Your task to perform on an android device: Add "razer blackwidow" to the cart on amazon.com Image 0: 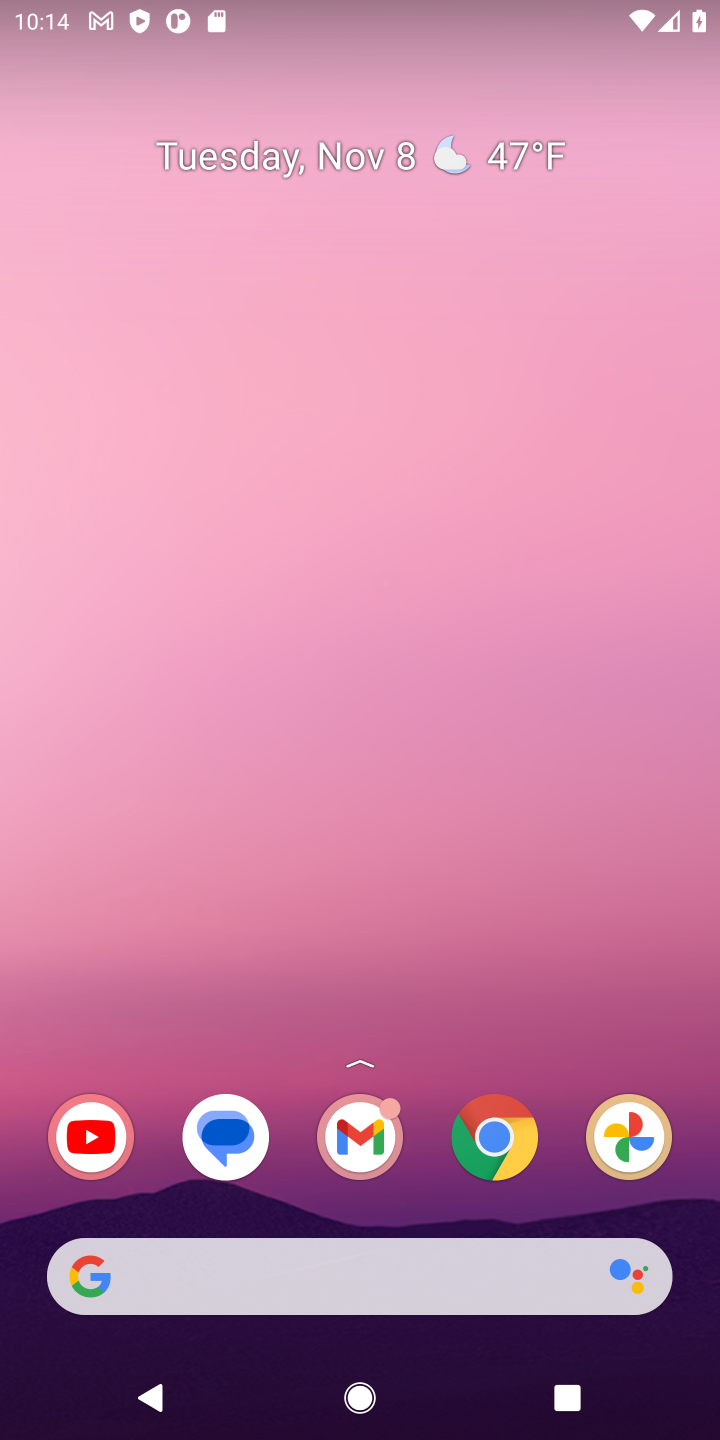
Step 0: click (488, 1136)
Your task to perform on an android device: Add "razer blackwidow" to the cart on amazon.com Image 1: 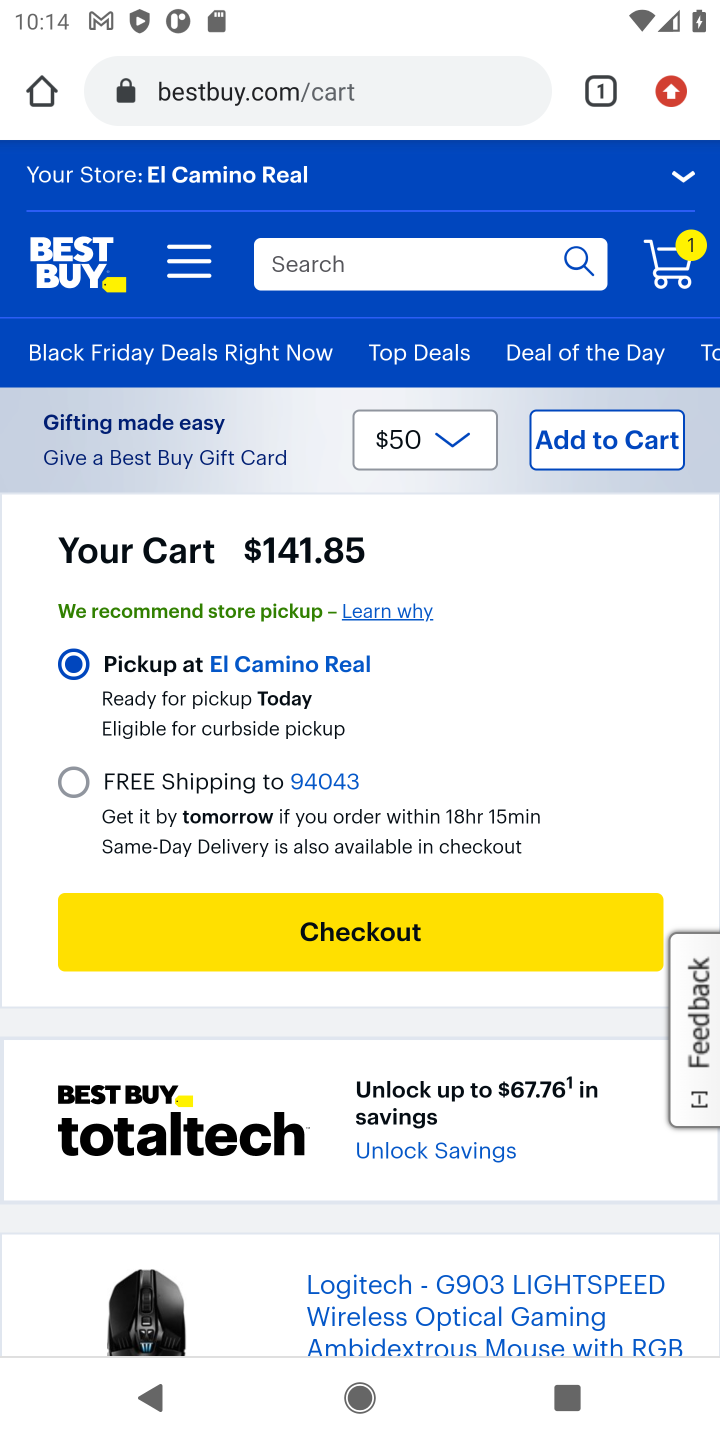
Step 1: click (450, 103)
Your task to perform on an android device: Add "razer blackwidow" to the cart on amazon.com Image 2: 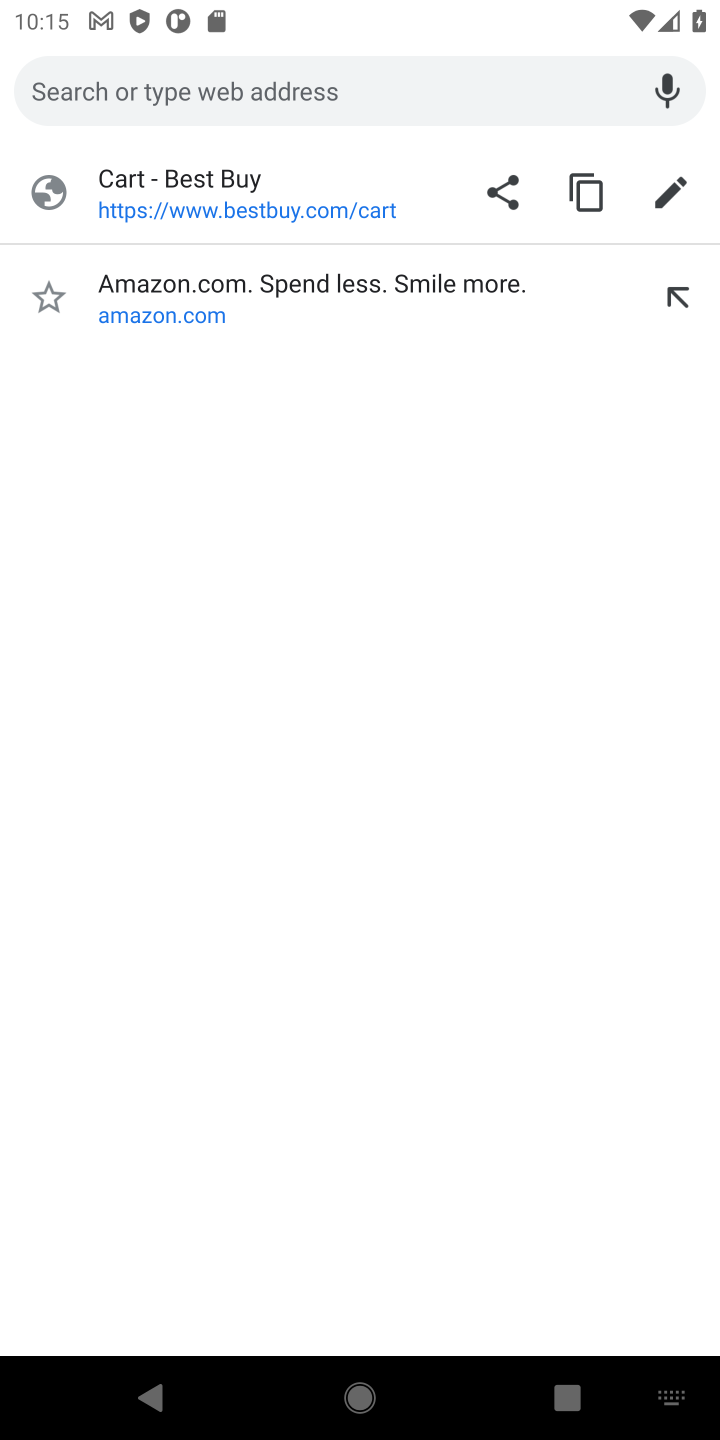
Step 2: type "amazon.com"
Your task to perform on an android device: Add "razer blackwidow" to the cart on amazon.com Image 3: 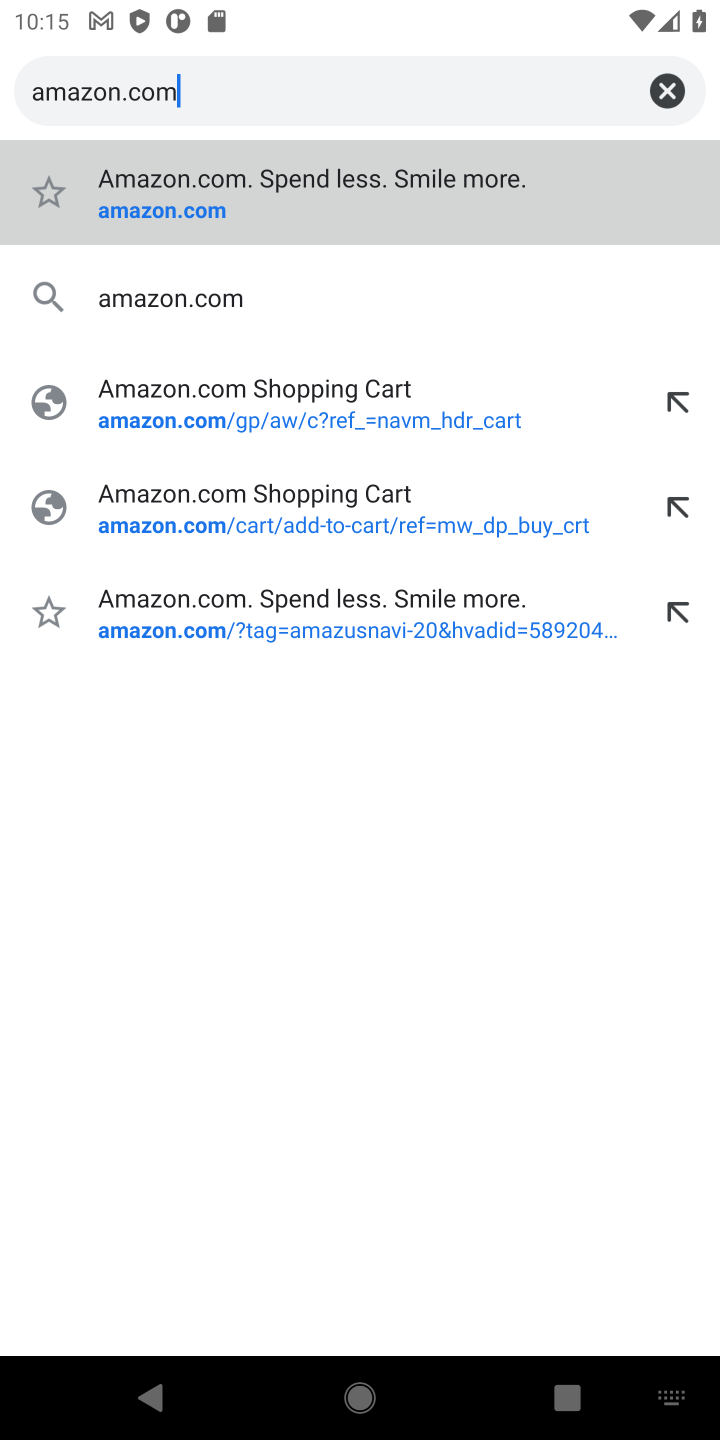
Step 3: click (179, 305)
Your task to perform on an android device: Add "razer blackwidow" to the cart on amazon.com Image 4: 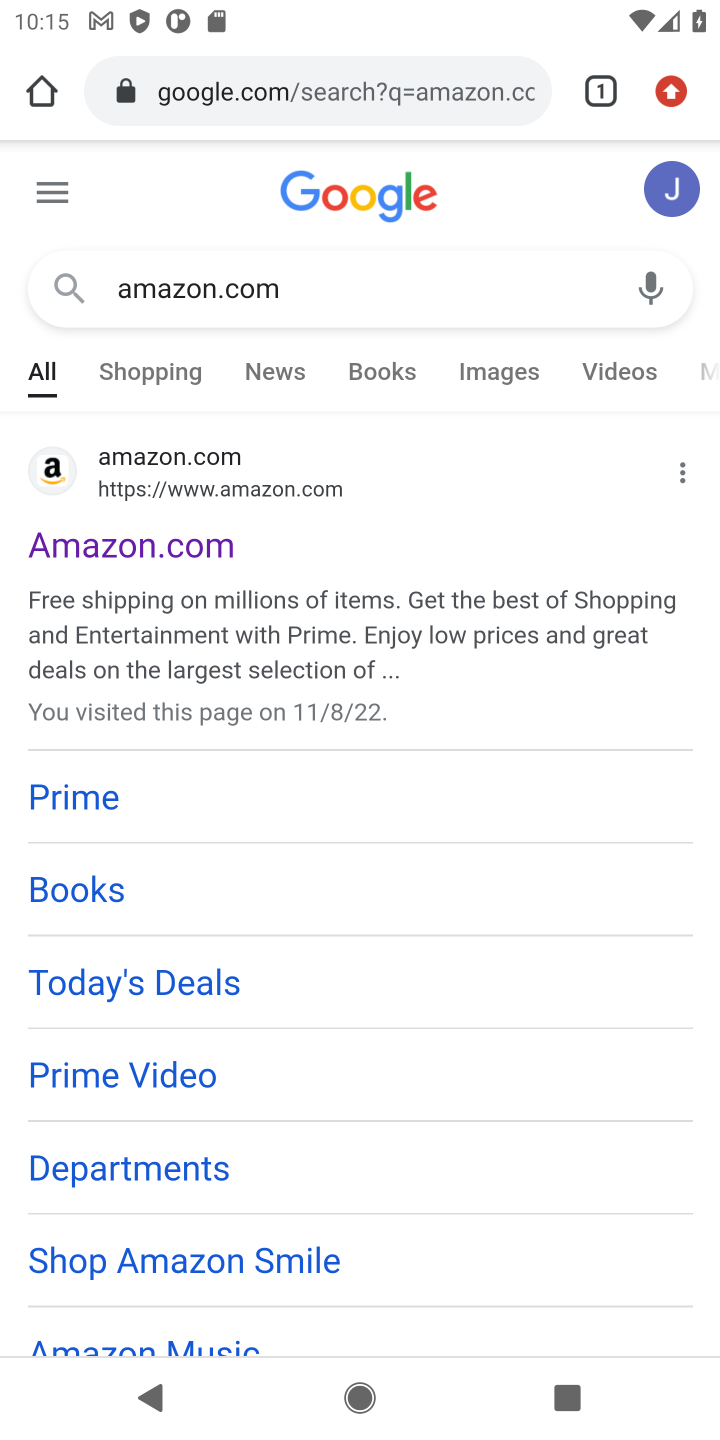
Step 4: click (170, 517)
Your task to perform on an android device: Add "razer blackwidow" to the cart on amazon.com Image 5: 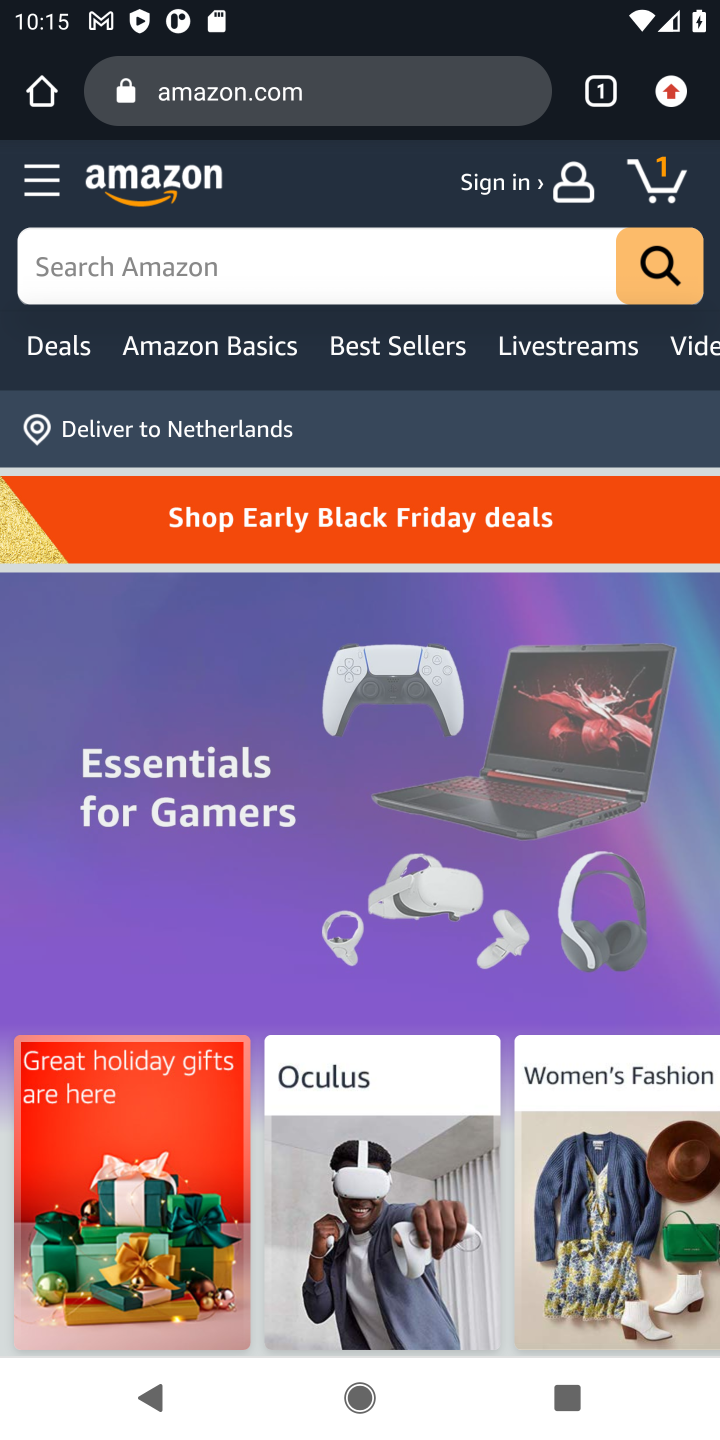
Step 5: click (346, 269)
Your task to perform on an android device: Add "razer blackwidow" to the cart on amazon.com Image 6: 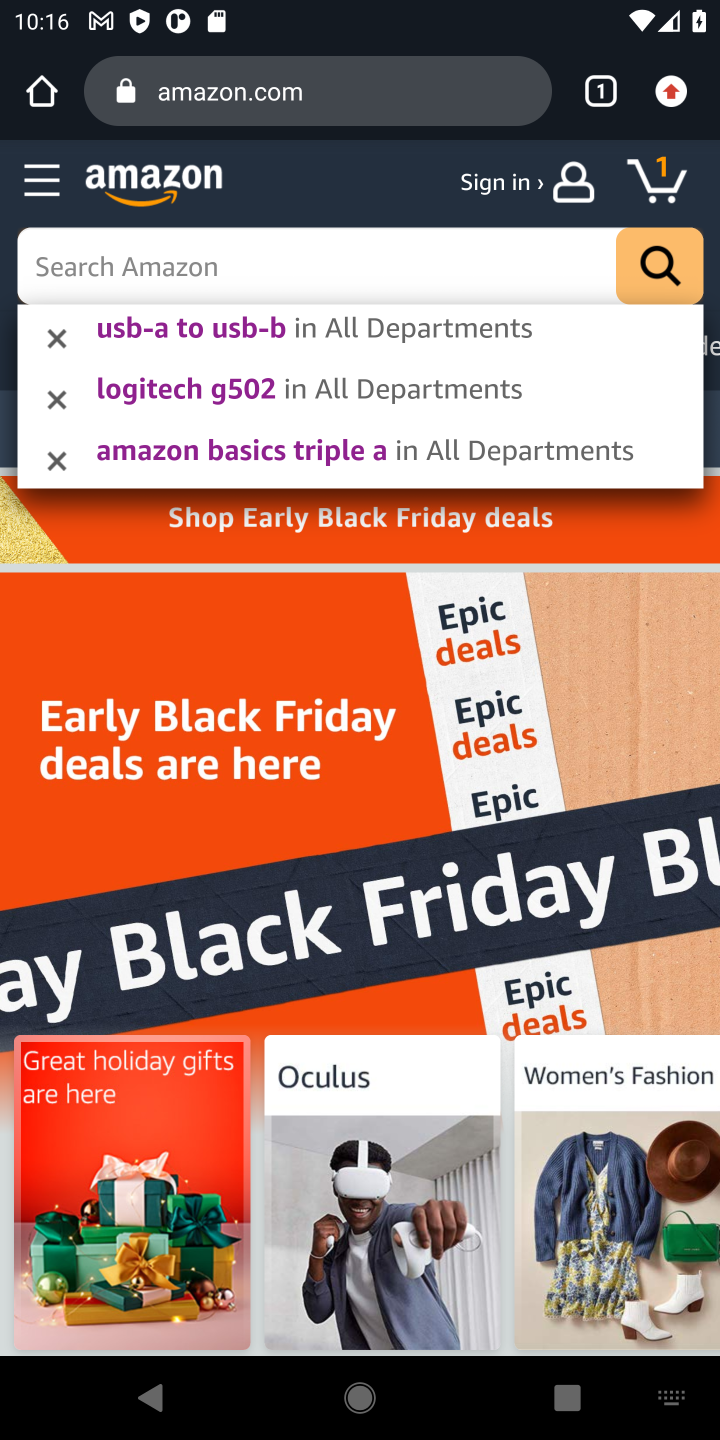
Step 6: type "razer blackwidow"
Your task to perform on an android device: Add "razer blackwidow" to the cart on amazon.com Image 7: 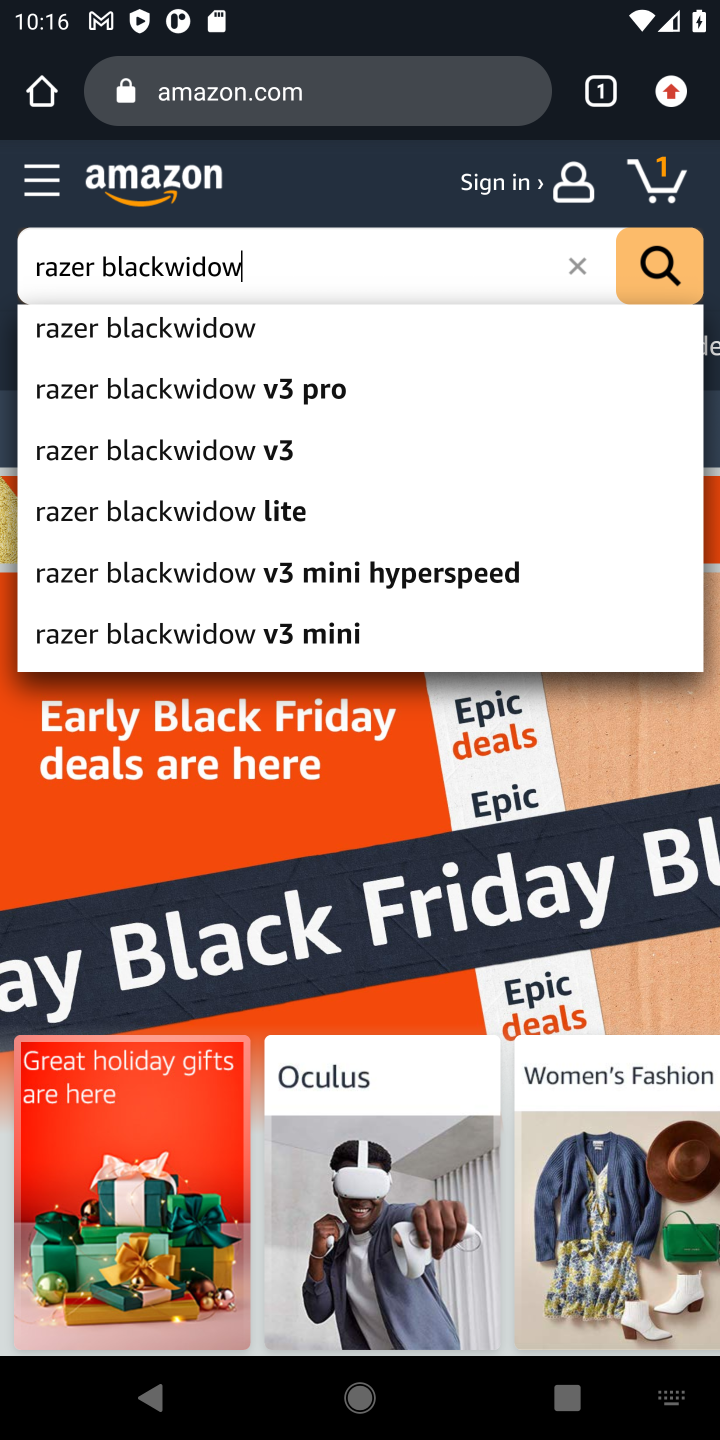
Step 7: click (213, 337)
Your task to perform on an android device: Add "razer blackwidow" to the cart on amazon.com Image 8: 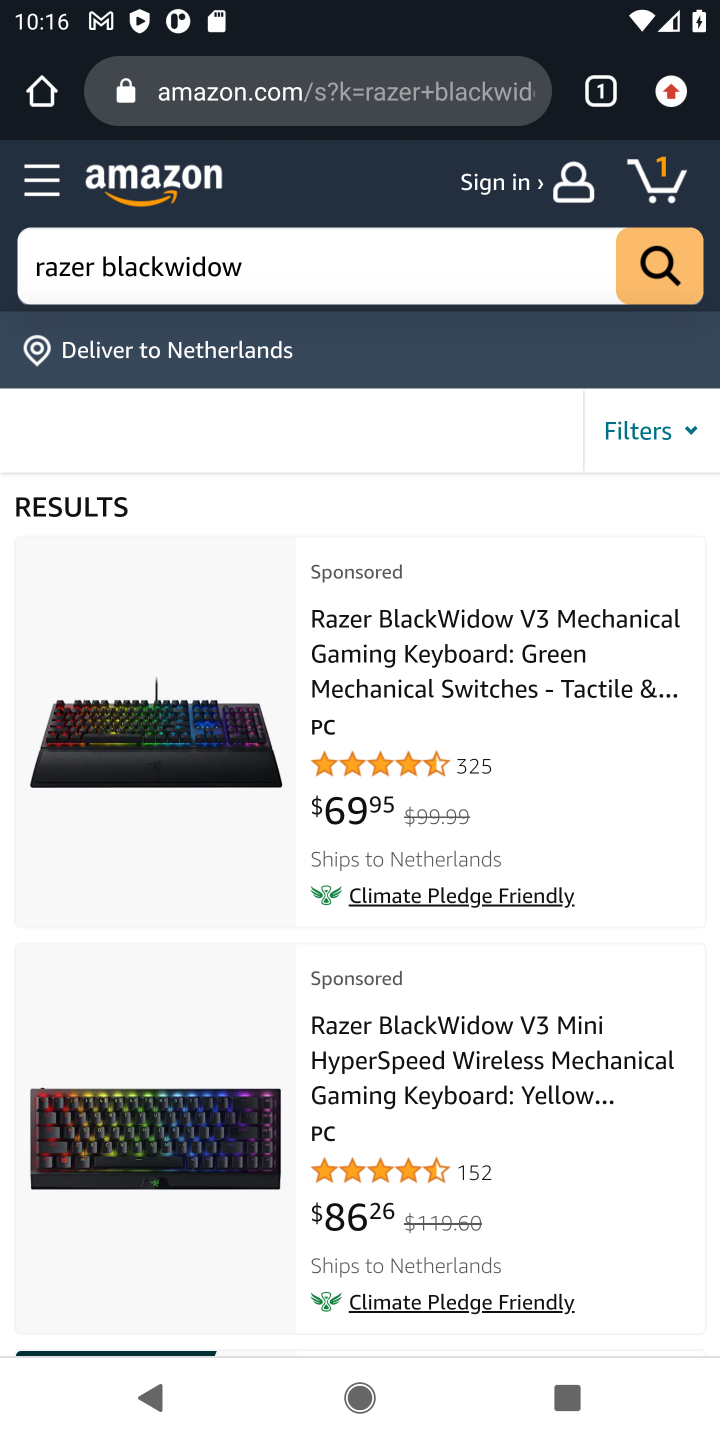
Step 8: drag from (505, 1157) to (538, 564)
Your task to perform on an android device: Add "razer blackwidow" to the cart on amazon.com Image 9: 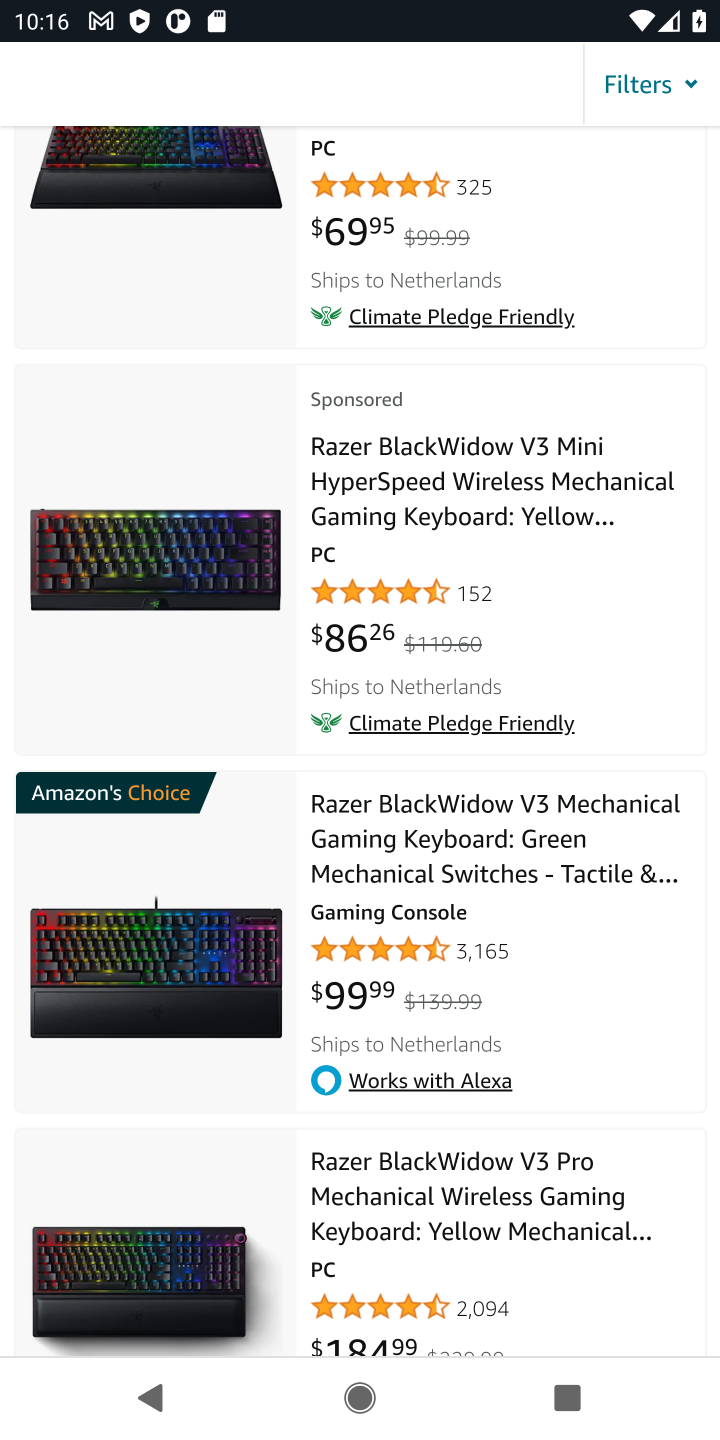
Step 9: click (460, 812)
Your task to perform on an android device: Add "razer blackwidow" to the cart on amazon.com Image 10: 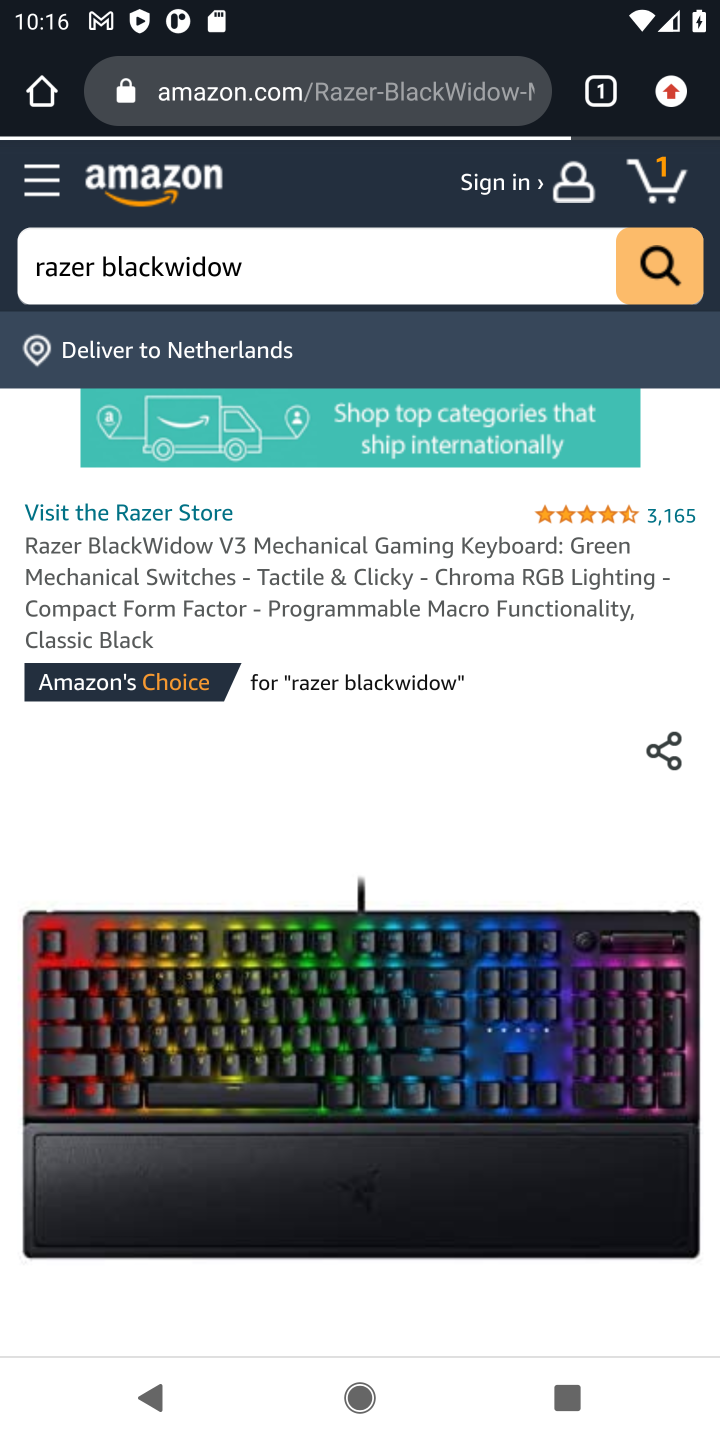
Step 10: drag from (464, 1146) to (448, 541)
Your task to perform on an android device: Add "razer blackwidow" to the cart on amazon.com Image 11: 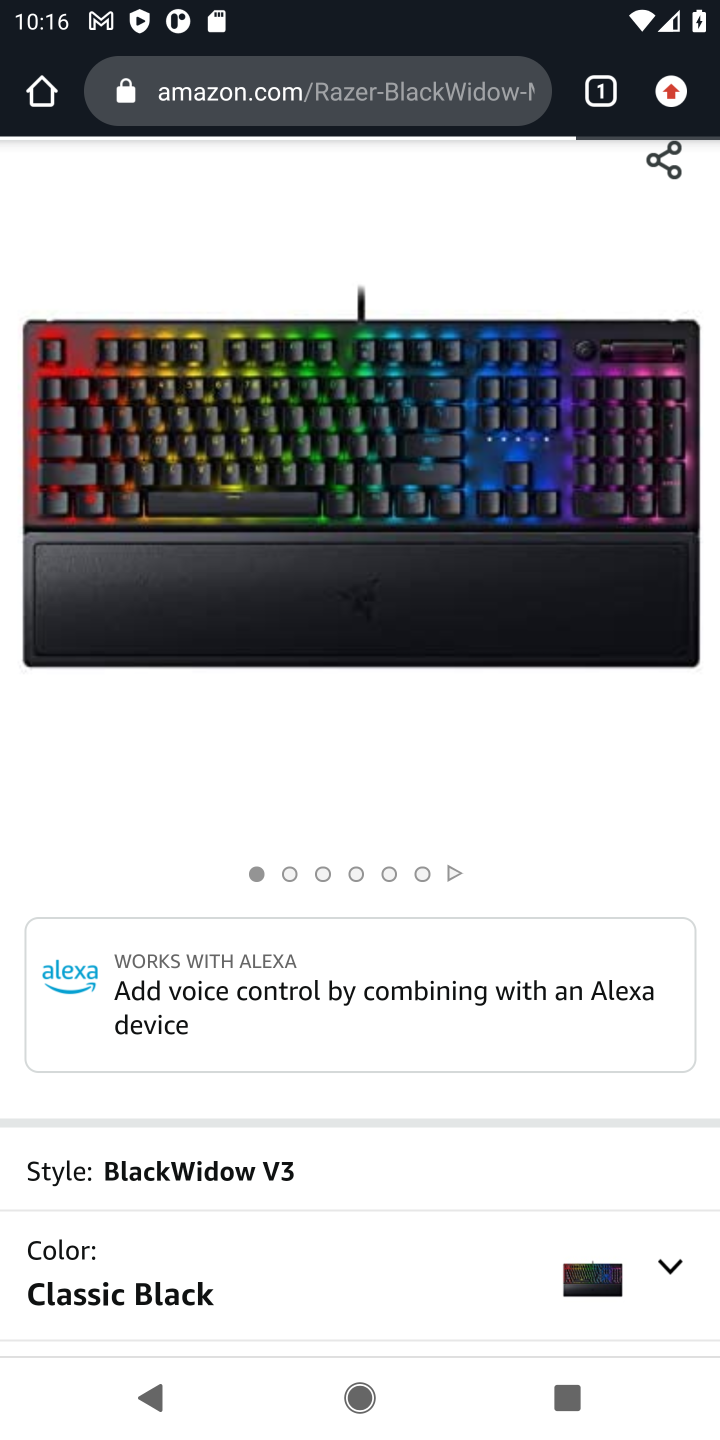
Step 11: drag from (445, 837) to (507, 608)
Your task to perform on an android device: Add "razer blackwidow" to the cart on amazon.com Image 12: 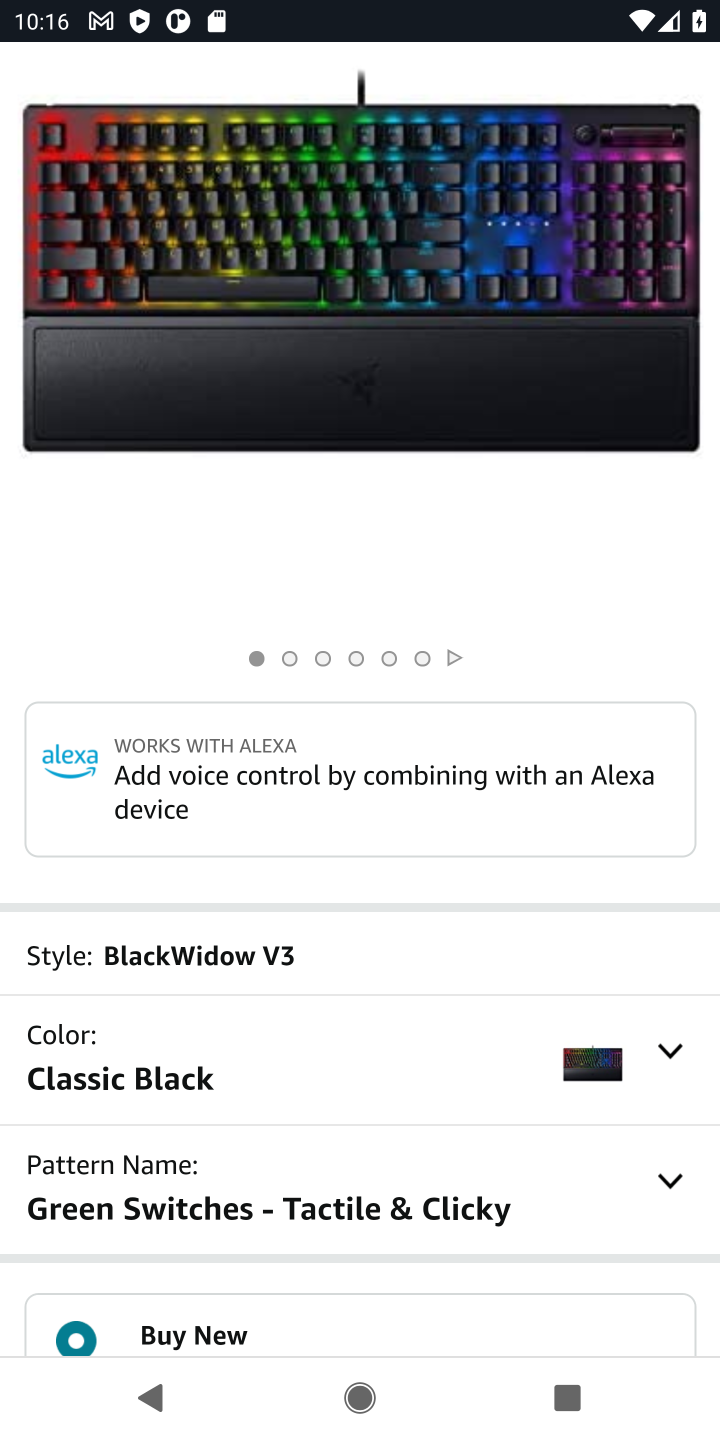
Step 12: drag from (406, 1182) to (452, 387)
Your task to perform on an android device: Add "razer blackwidow" to the cart on amazon.com Image 13: 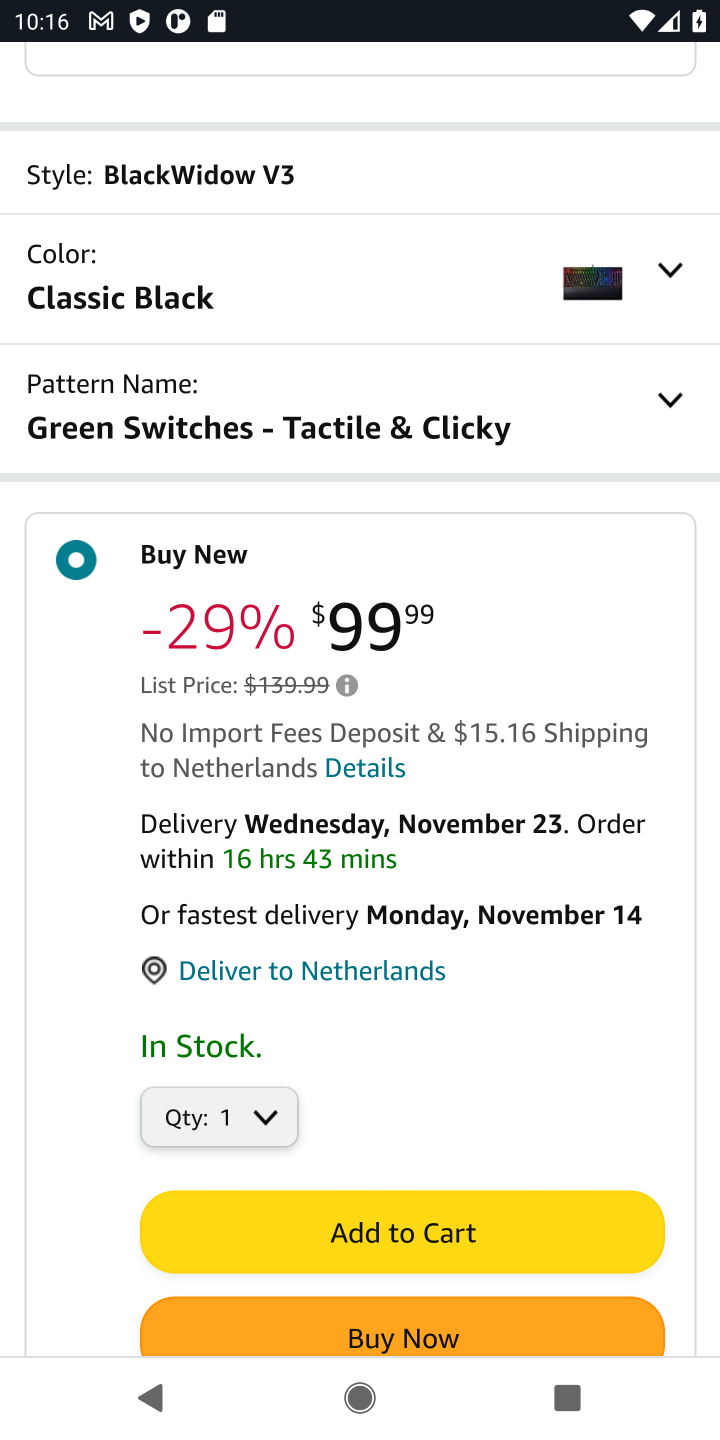
Step 13: drag from (383, 966) to (460, 408)
Your task to perform on an android device: Add "razer blackwidow" to the cart on amazon.com Image 14: 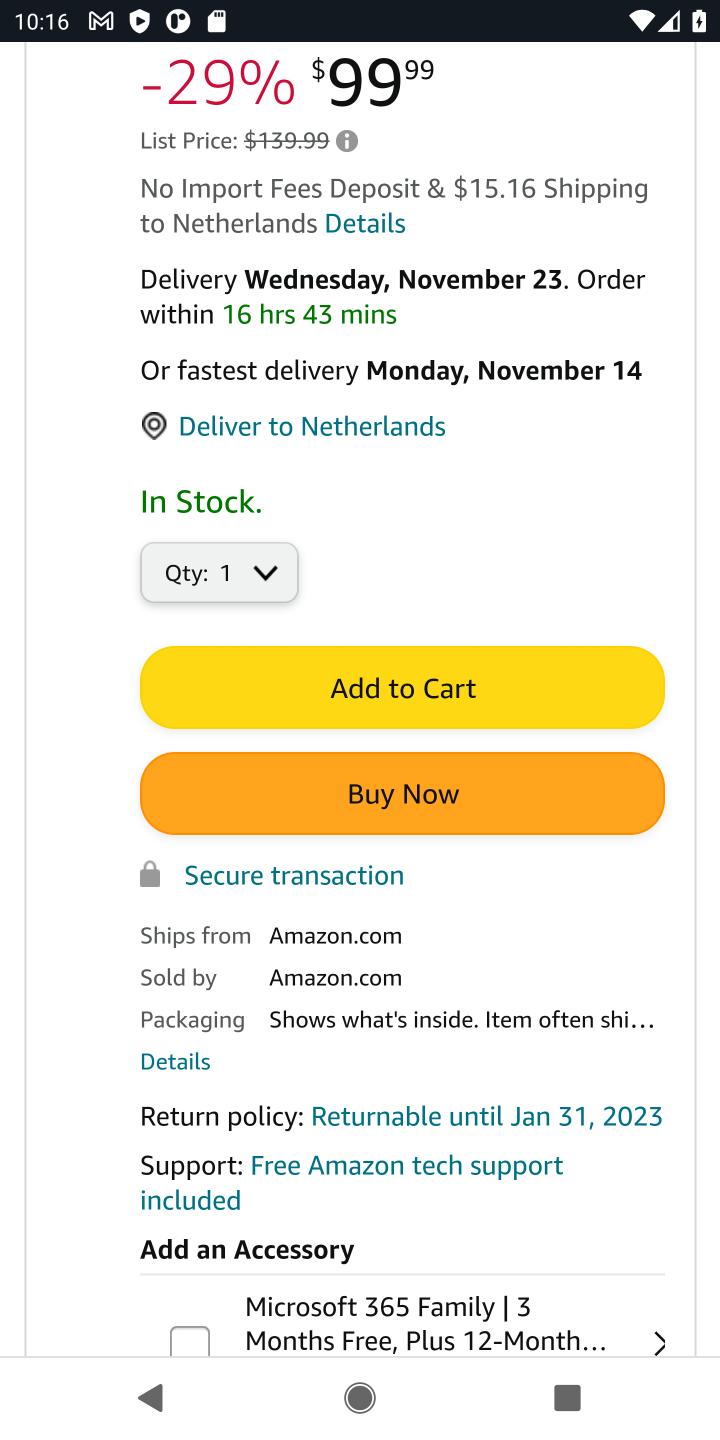
Step 14: click (401, 684)
Your task to perform on an android device: Add "razer blackwidow" to the cart on amazon.com Image 15: 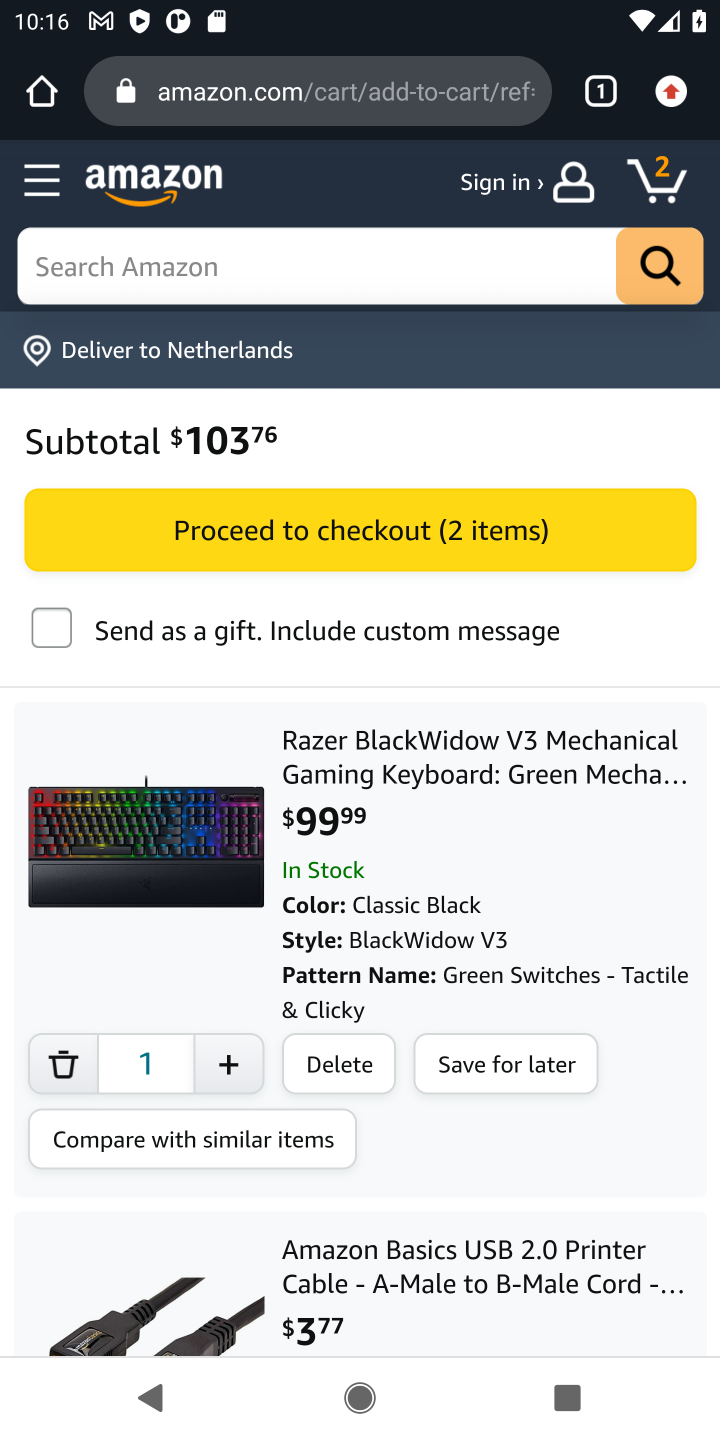
Step 15: task complete